Your task to perform on an android device: open app "Expedia: Hotels, Flights & Car" Image 0: 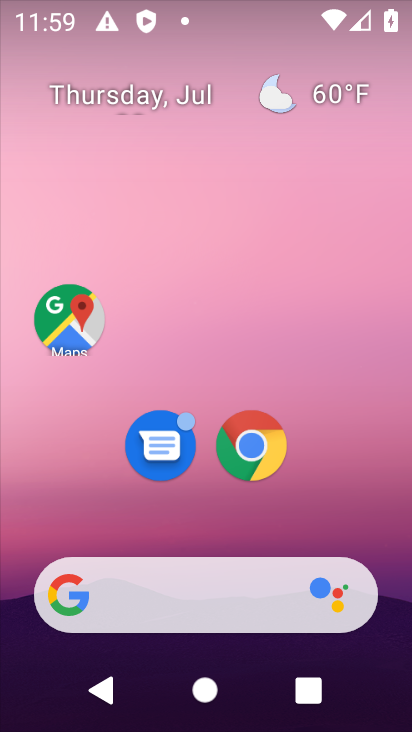
Step 0: press home button
Your task to perform on an android device: open app "Expedia: Hotels, Flights & Car" Image 1: 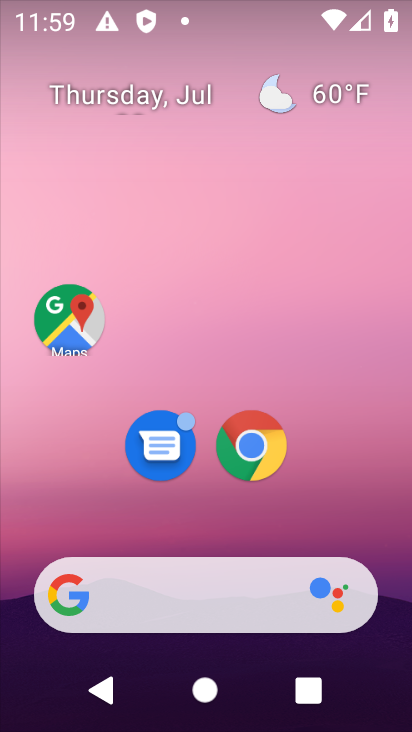
Step 1: task complete